Your task to perform on an android device: Open the stopwatch Image 0: 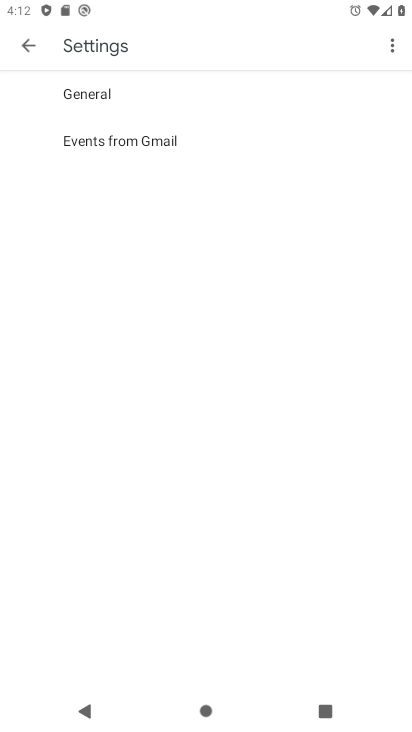
Step 0: press home button
Your task to perform on an android device: Open the stopwatch Image 1: 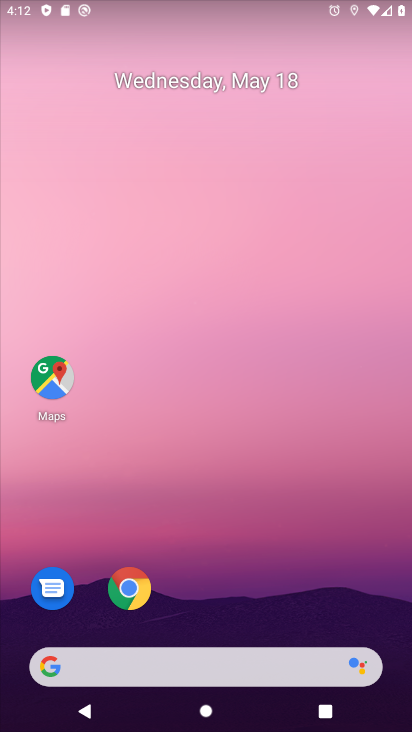
Step 1: drag from (300, 601) to (269, 141)
Your task to perform on an android device: Open the stopwatch Image 2: 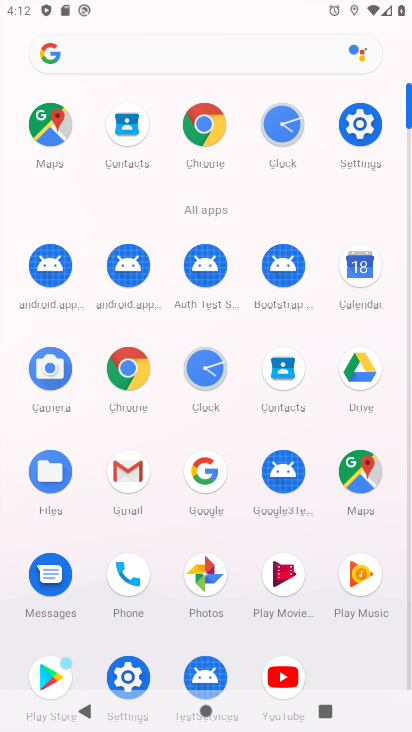
Step 2: click (210, 362)
Your task to perform on an android device: Open the stopwatch Image 3: 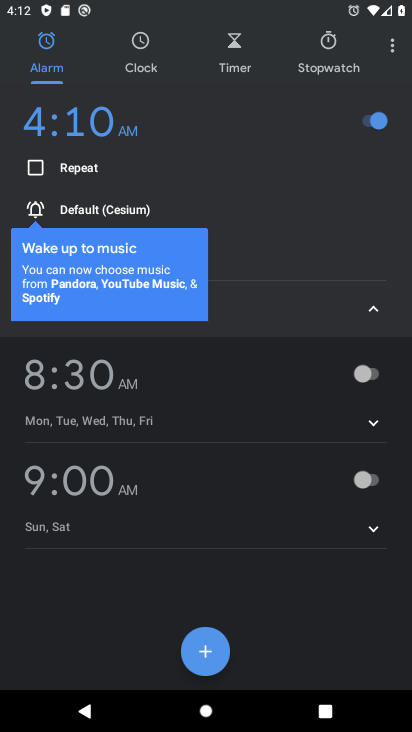
Step 3: click (322, 62)
Your task to perform on an android device: Open the stopwatch Image 4: 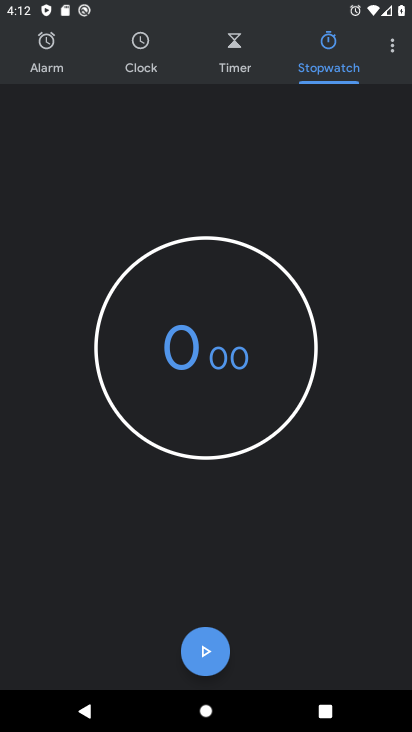
Step 4: task complete